Your task to perform on an android device: Open the camera Image 0: 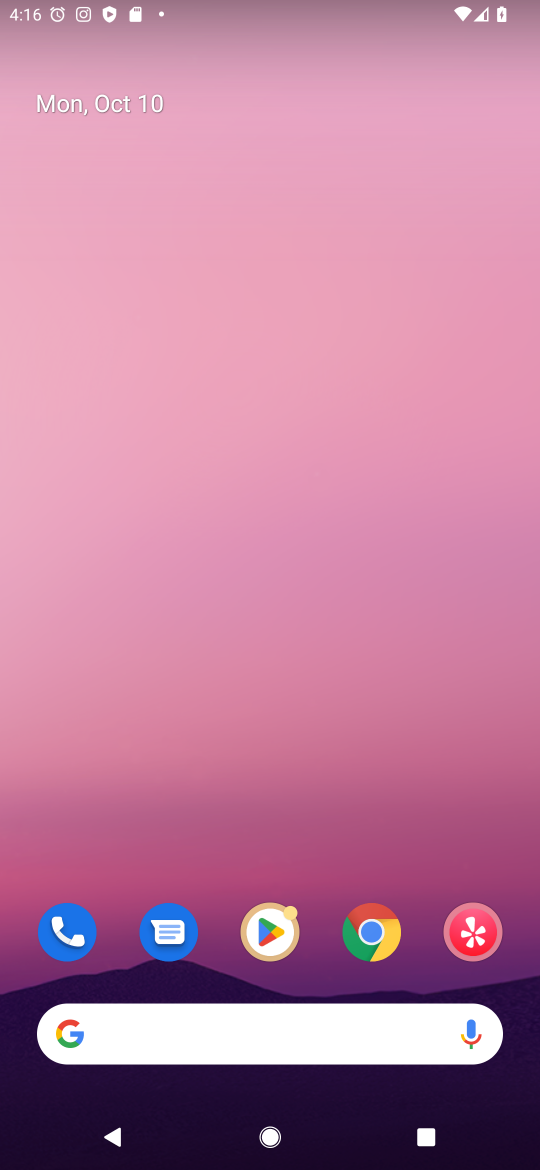
Step 0: drag from (479, 835) to (463, 145)
Your task to perform on an android device: Open the camera Image 1: 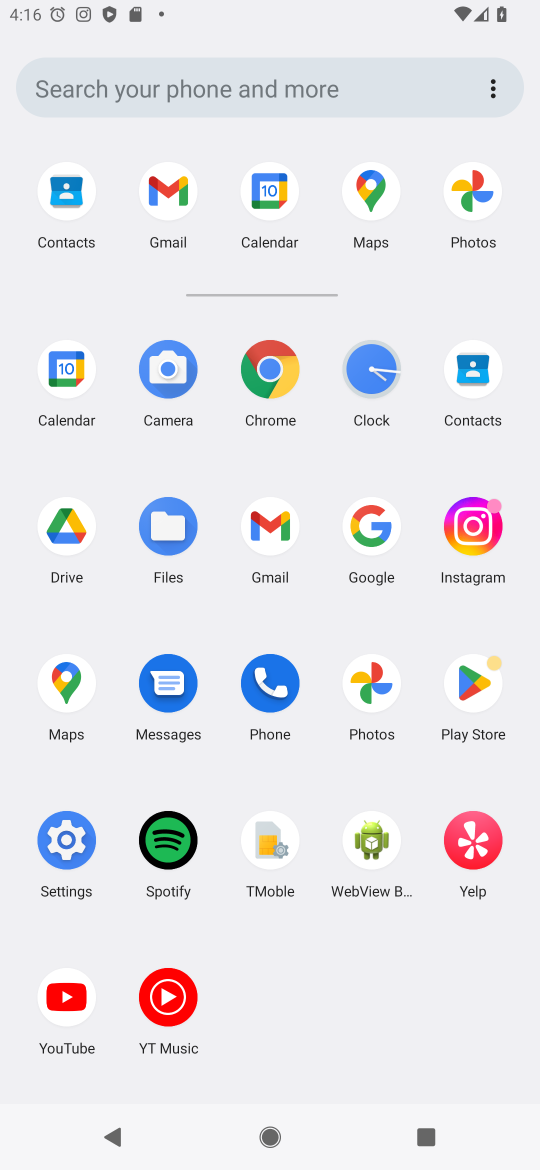
Step 1: task complete